Your task to perform on an android device: What's on my calendar tomorrow? Image 0: 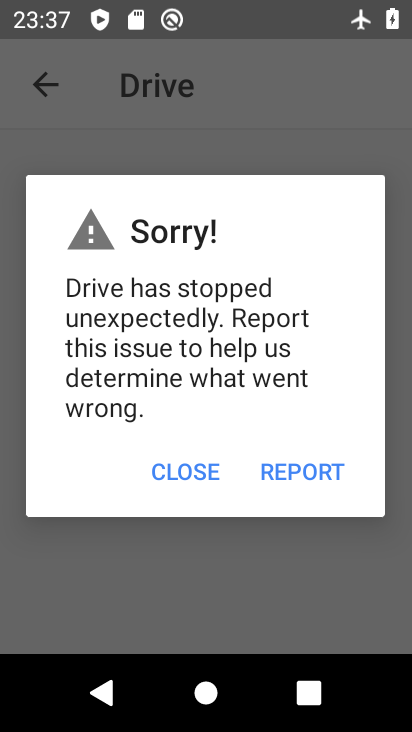
Step 0: press home button
Your task to perform on an android device: What's on my calendar tomorrow? Image 1: 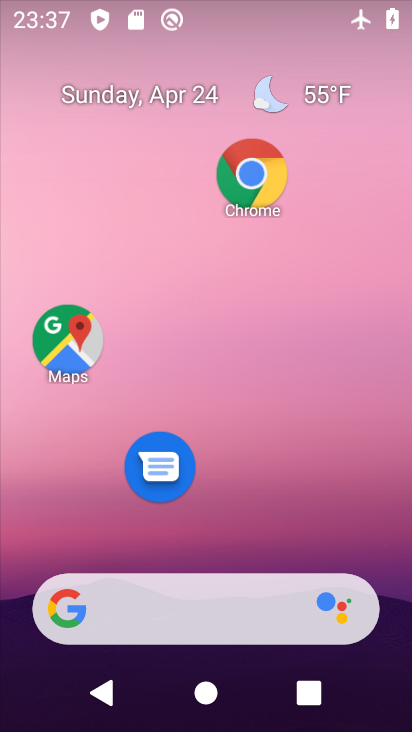
Step 1: drag from (219, 475) to (289, 103)
Your task to perform on an android device: What's on my calendar tomorrow? Image 2: 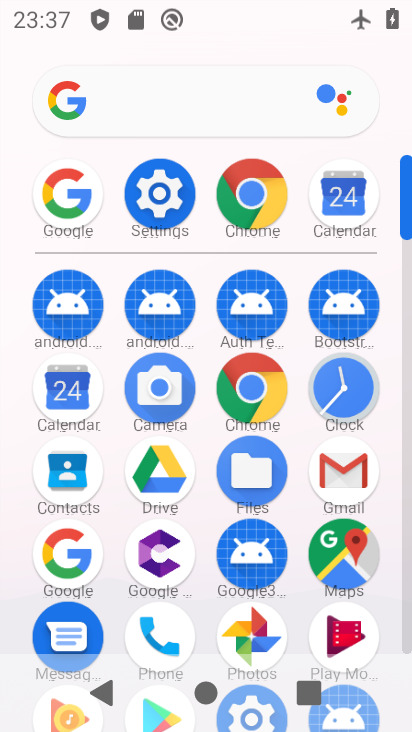
Step 2: click (70, 400)
Your task to perform on an android device: What's on my calendar tomorrow? Image 3: 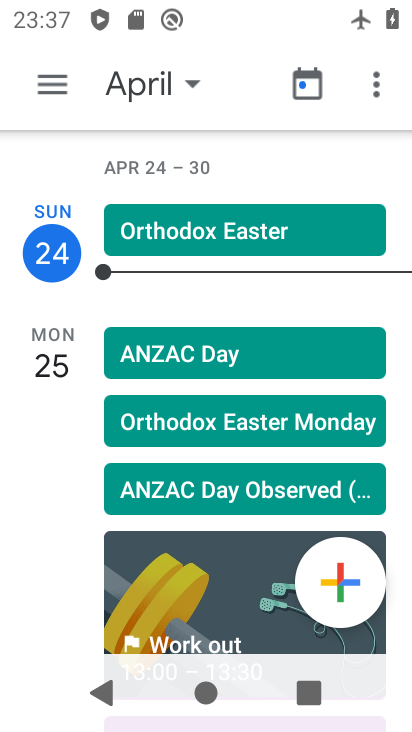
Step 3: click (197, 83)
Your task to perform on an android device: What's on my calendar tomorrow? Image 4: 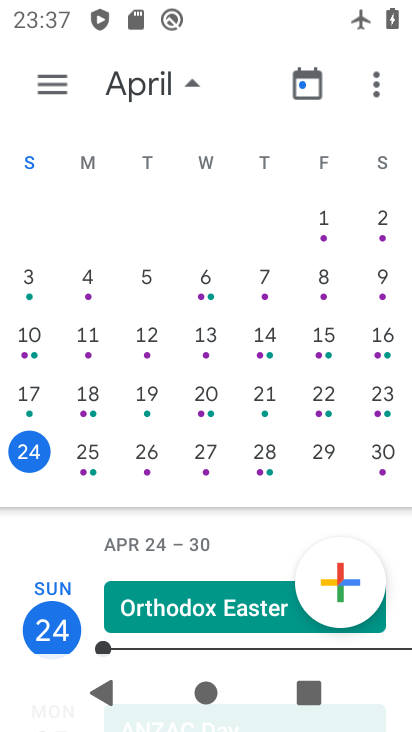
Step 4: click (91, 459)
Your task to perform on an android device: What's on my calendar tomorrow? Image 5: 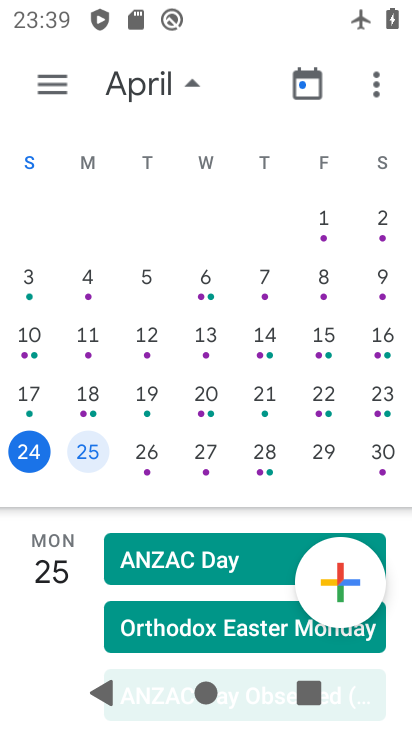
Step 5: task complete